Your task to perform on an android device: open a bookmark in the chrome app Image 0: 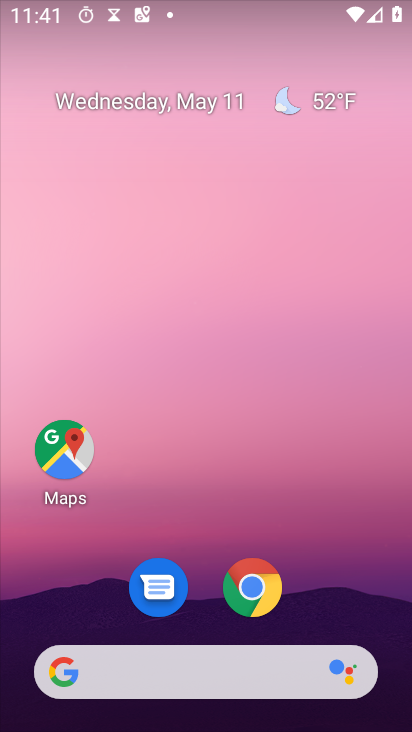
Step 0: drag from (207, 699) to (338, 285)
Your task to perform on an android device: open a bookmark in the chrome app Image 1: 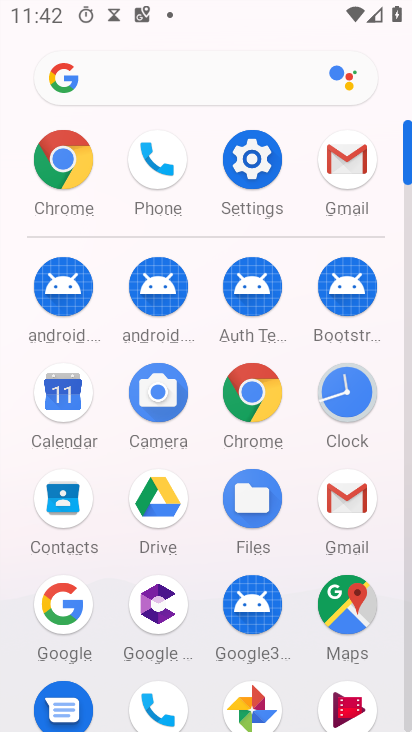
Step 1: click (262, 386)
Your task to perform on an android device: open a bookmark in the chrome app Image 2: 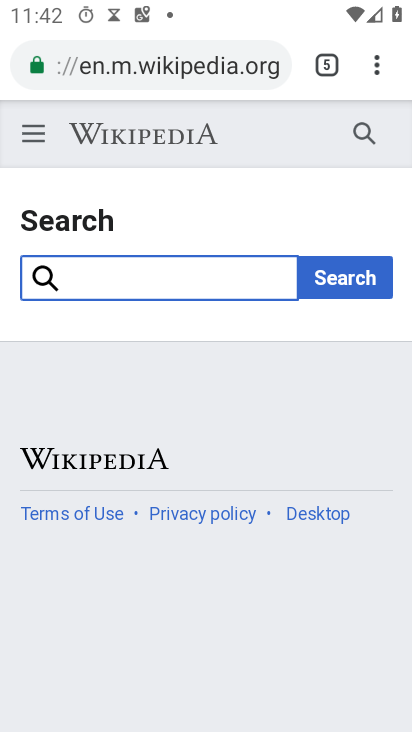
Step 2: click (374, 77)
Your task to perform on an android device: open a bookmark in the chrome app Image 3: 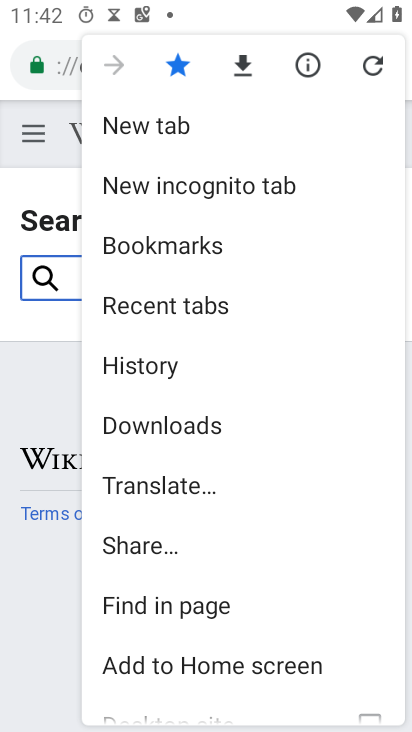
Step 3: click (165, 254)
Your task to perform on an android device: open a bookmark in the chrome app Image 4: 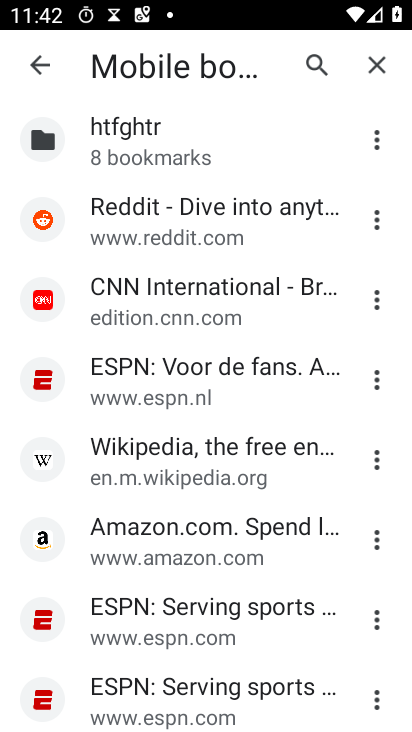
Step 4: click (100, 529)
Your task to perform on an android device: open a bookmark in the chrome app Image 5: 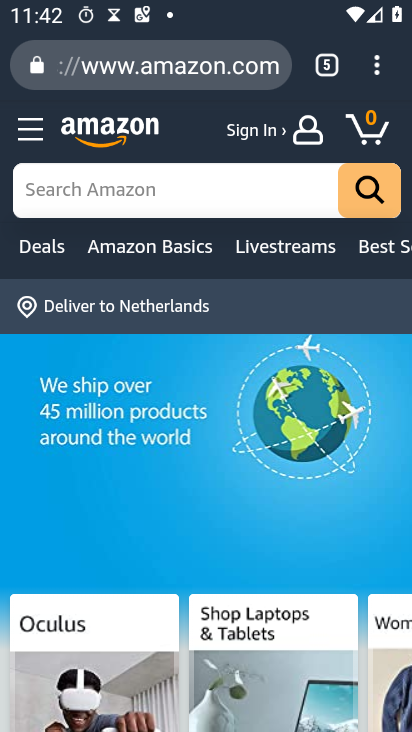
Step 5: task complete